Your task to perform on an android device: Go to settings Image 0: 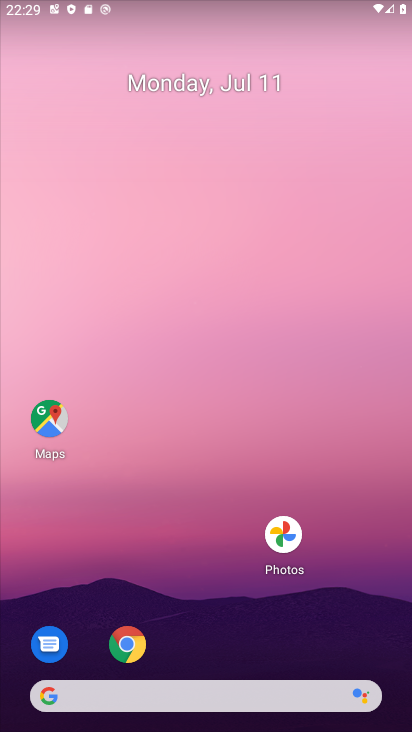
Step 0: drag from (228, 631) to (180, 240)
Your task to perform on an android device: Go to settings Image 1: 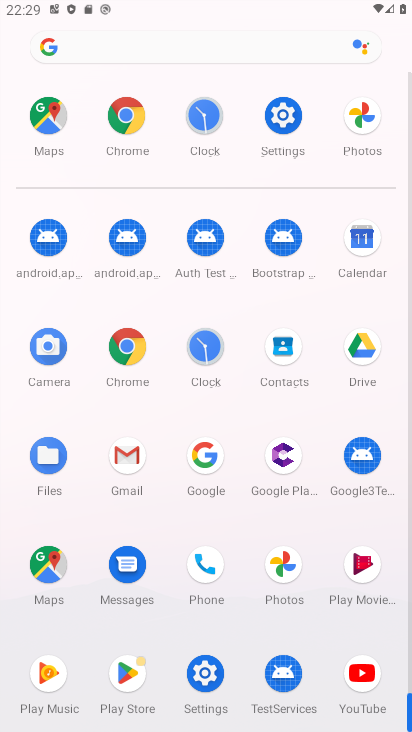
Step 1: click (275, 125)
Your task to perform on an android device: Go to settings Image 2: 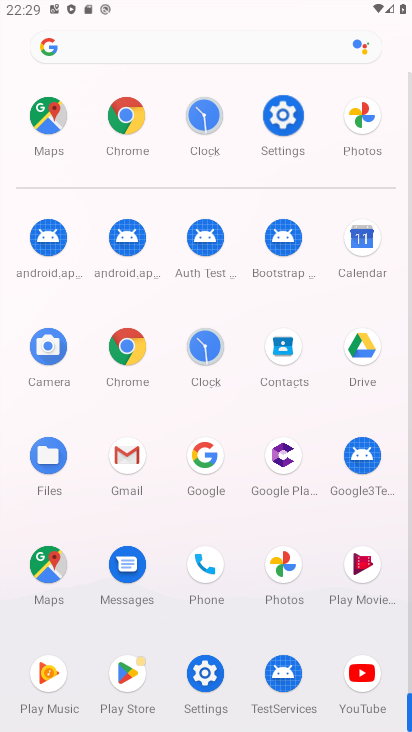
Step 2: click (290, 129)
Your task to perform on an android device: Go to settings Image 3: 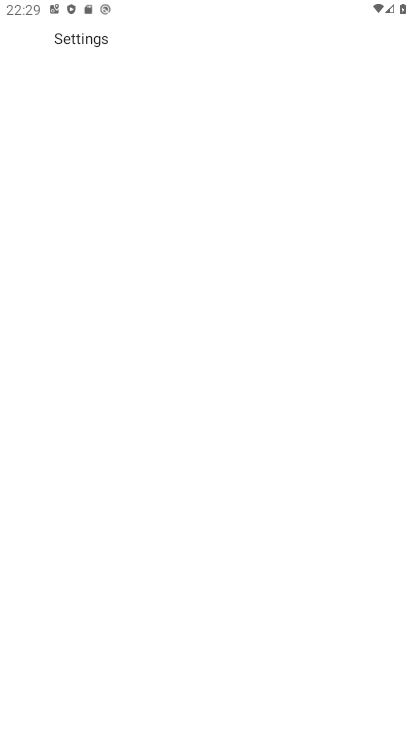
Step 3: click (290, 131)
Your task to perform on an android device: Go to settings Image 4: 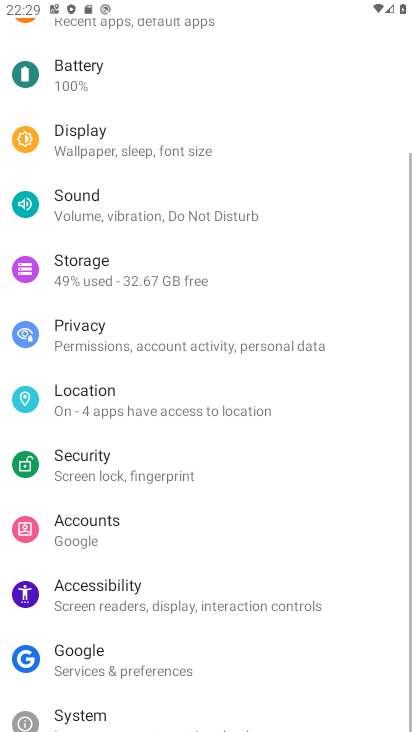
Step 4: click (285, 133)
Your task to perform on an android device: Go to settings Image 5: 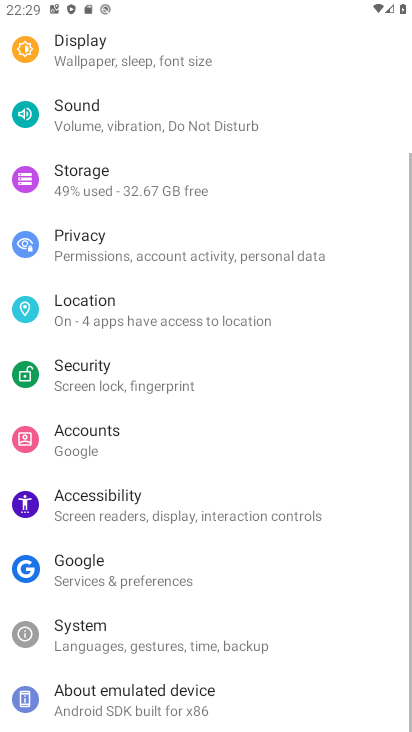
Step 5: click (274, 154)
Your task to perform on an android device: Go to settings Image 6: 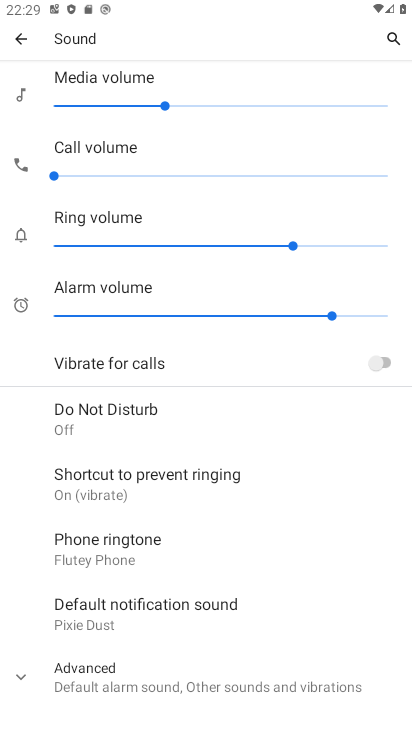
Step 6: click (15, 35)
Your task to perform on an android device: Go to settings Image 7: 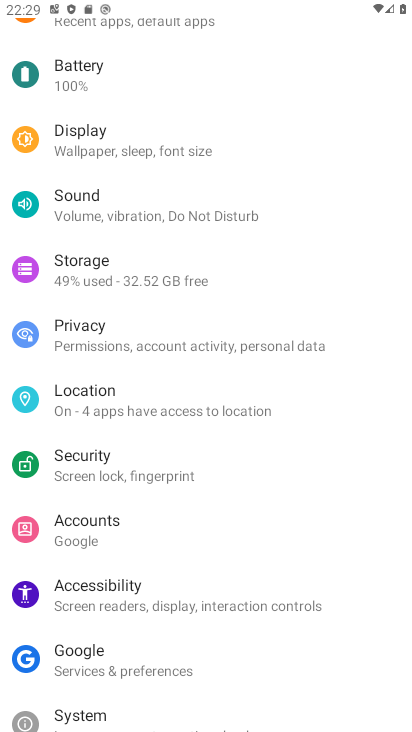
Step 7: task complete